Your task to perform on an android device: turn off location history Image 0: 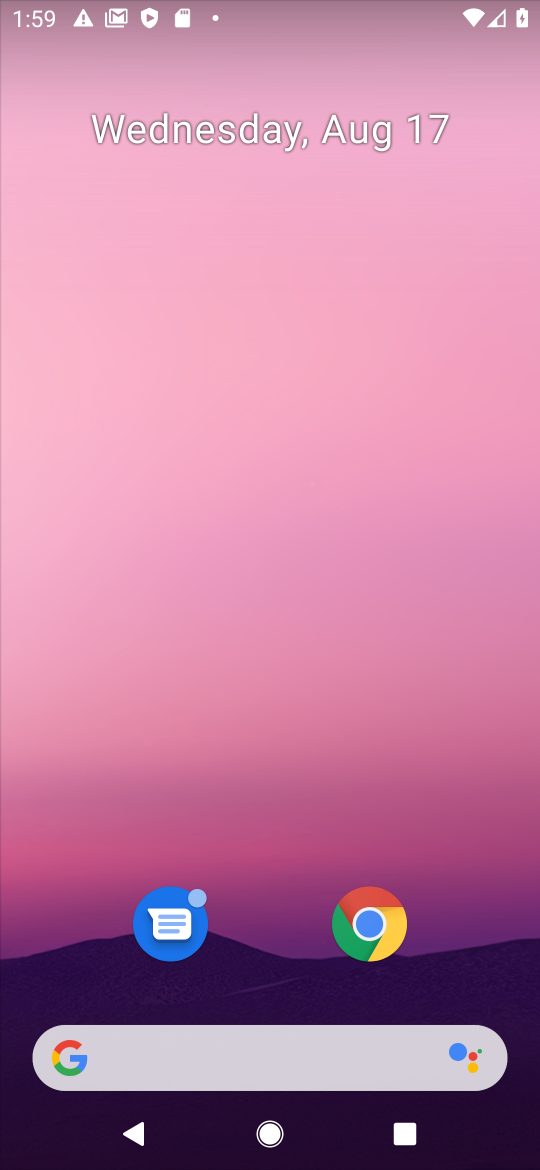
Step 0: drag from (309, 906) to (291, 1)
Your task to perform on an android device: turn off location history Image 1: 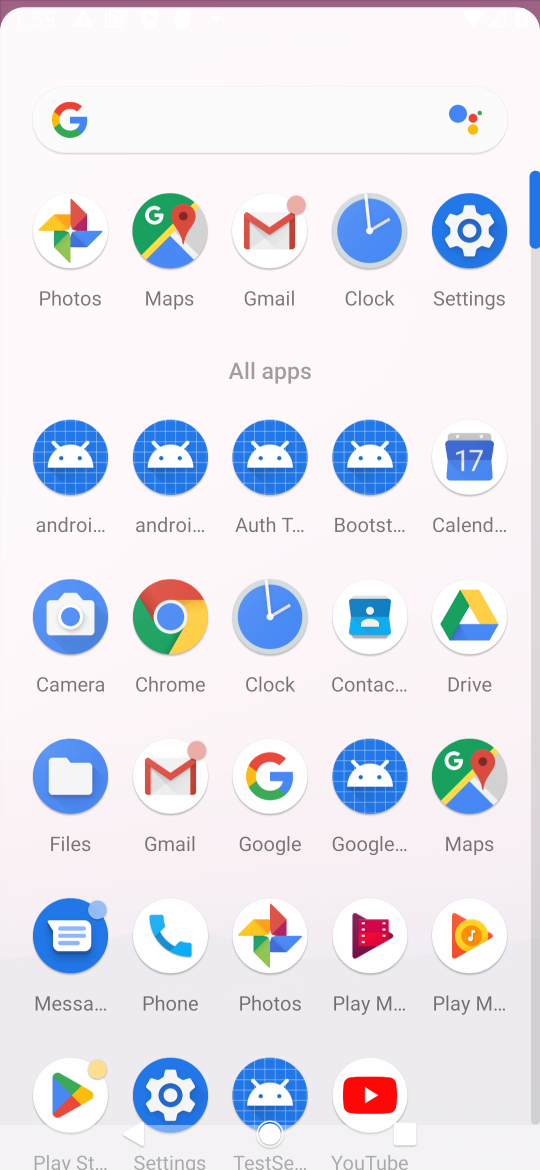
Step 1: click (485, 290)
Your task to perform on an android device: turn off location history Image 2: 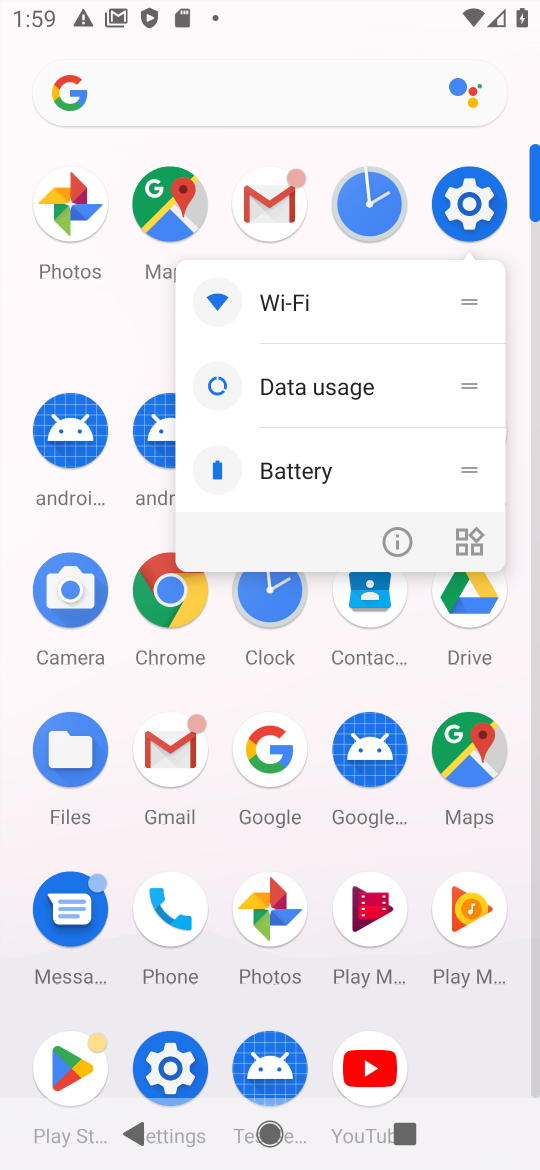
Step 2: click (476, 222)
Your task to perform on an android device: turn off location history Image 3: 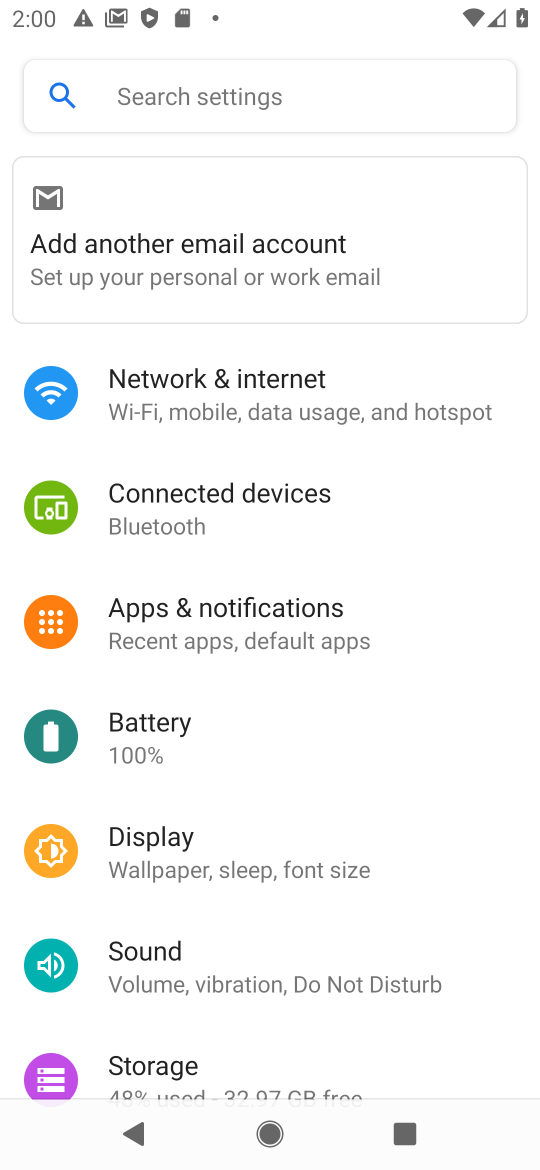
Step 3: drag from (381, 951) to (301, 218)
Your task to perform on an android device: turn off location history Image 4: 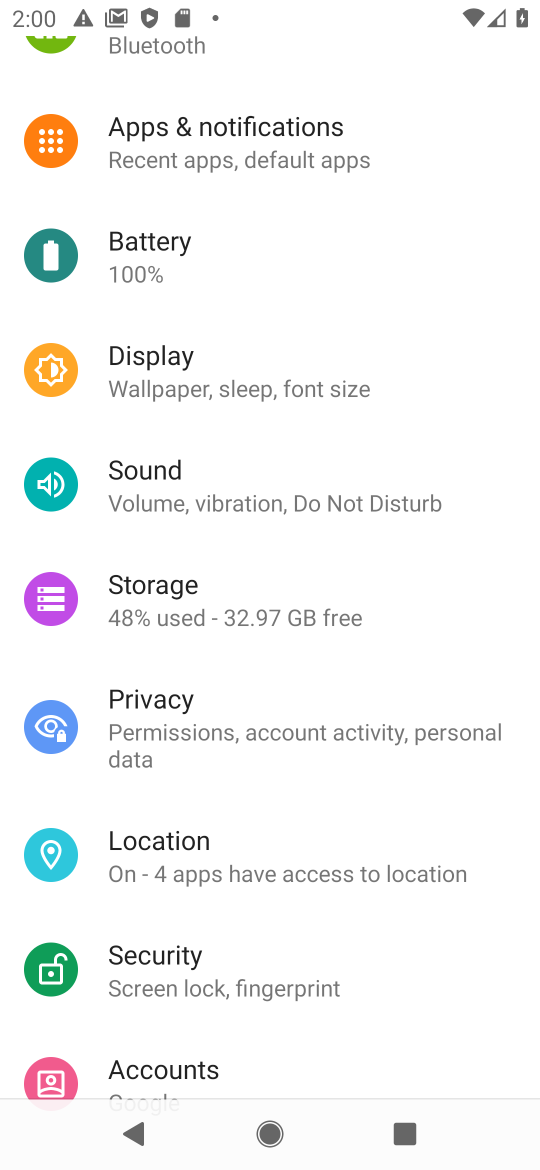
Step 4: click (211, 858)
Your task to perform on an android device: turn off location history Image 5: 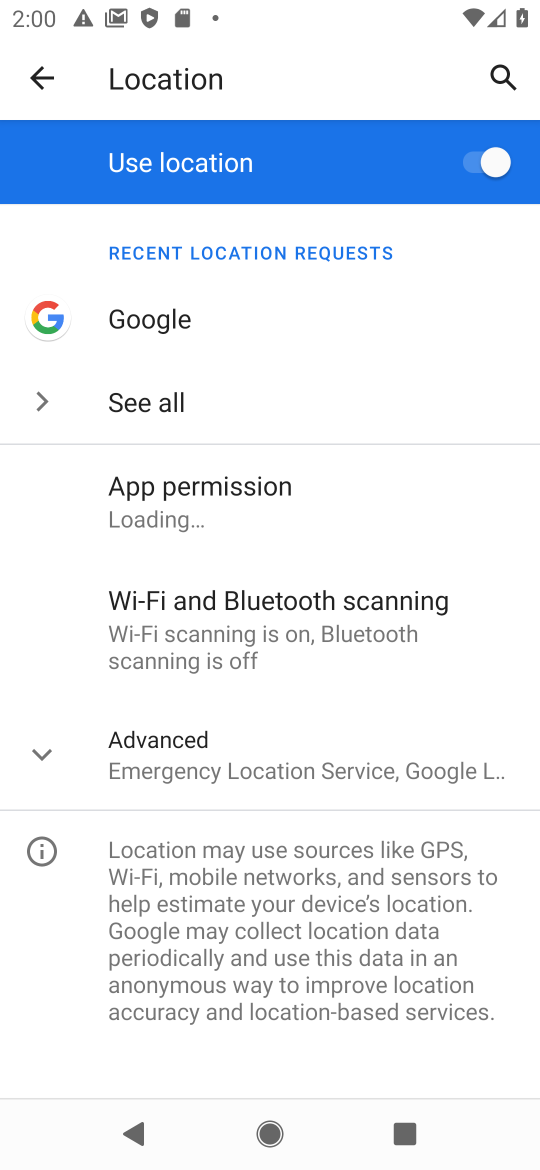
Step 5: click (321, 760)
Your task to perform on an android device: turn off location history Image 6: 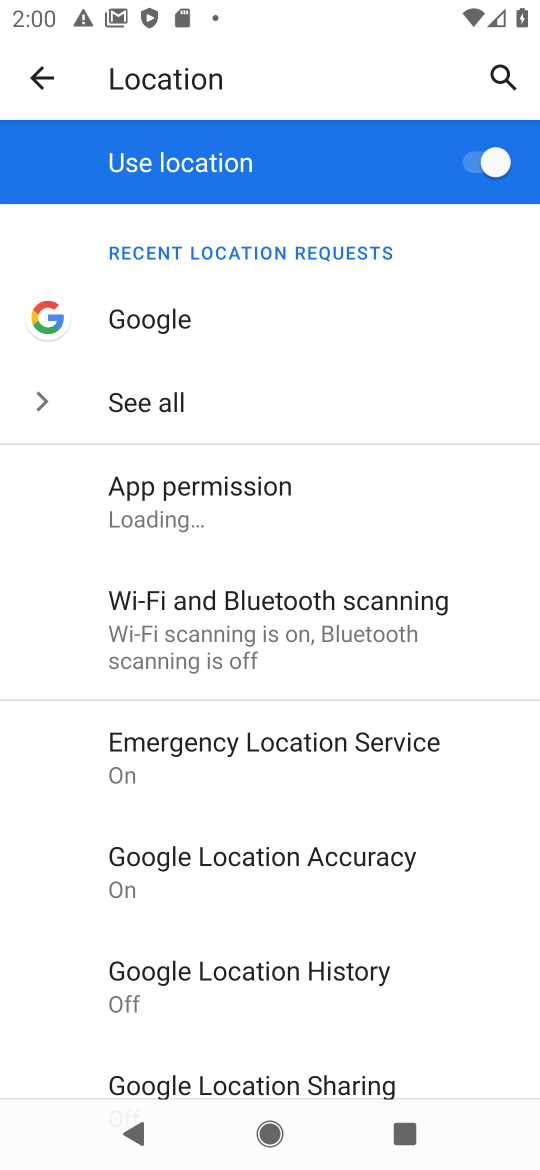
Step 6: click (356, 972)
Your task to perform on an android device: turn off location history Image 7: 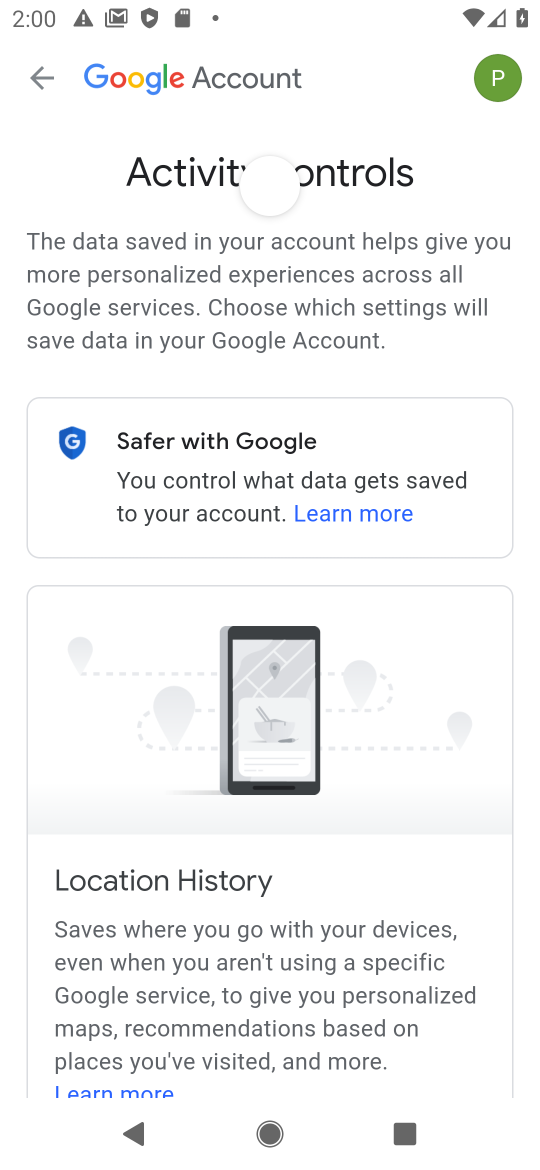
Step 7: task complete